Your task to perform on an android device: uninstall "Instagram" Image 0: 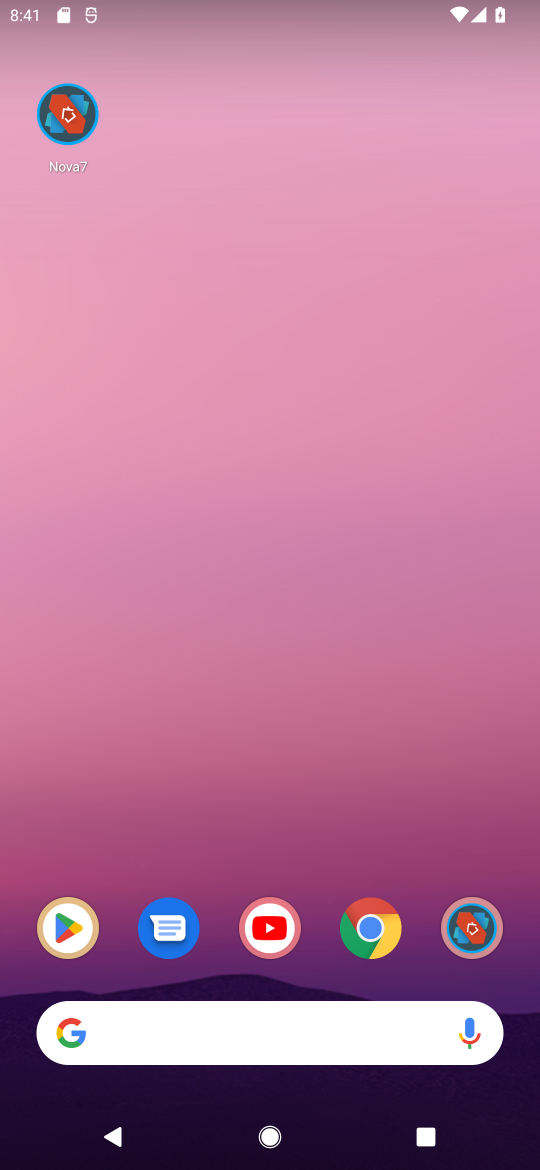
Step 0: press home button
Your task to perform on an android device: uninstall "Instagram" Image 1: 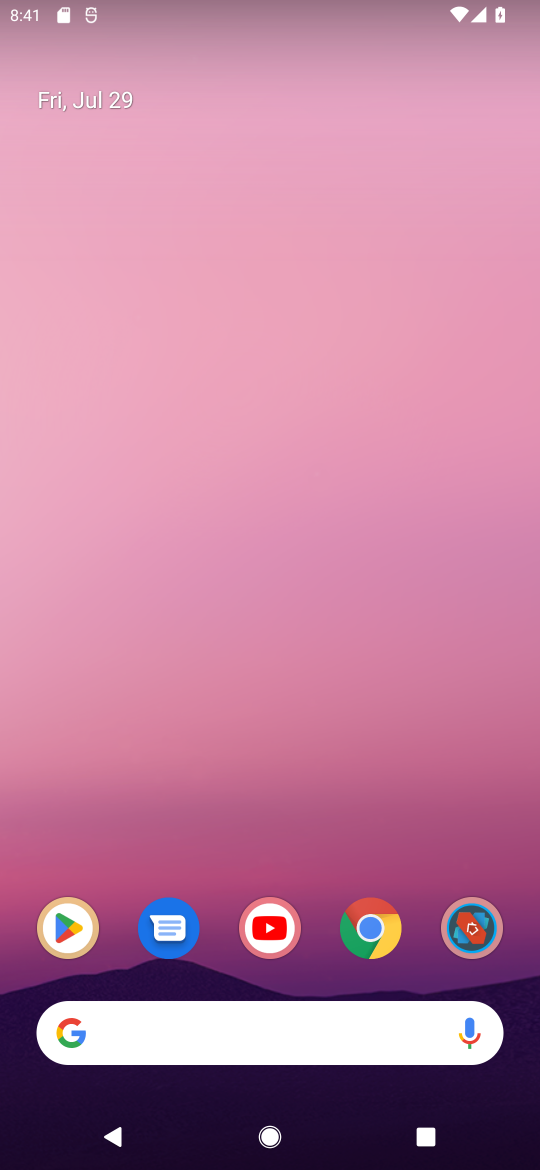
Step 1: drag from (164, 1036) to (220, 143)
Your task to perform on an android device: uninstall "Instagram" Image 2: 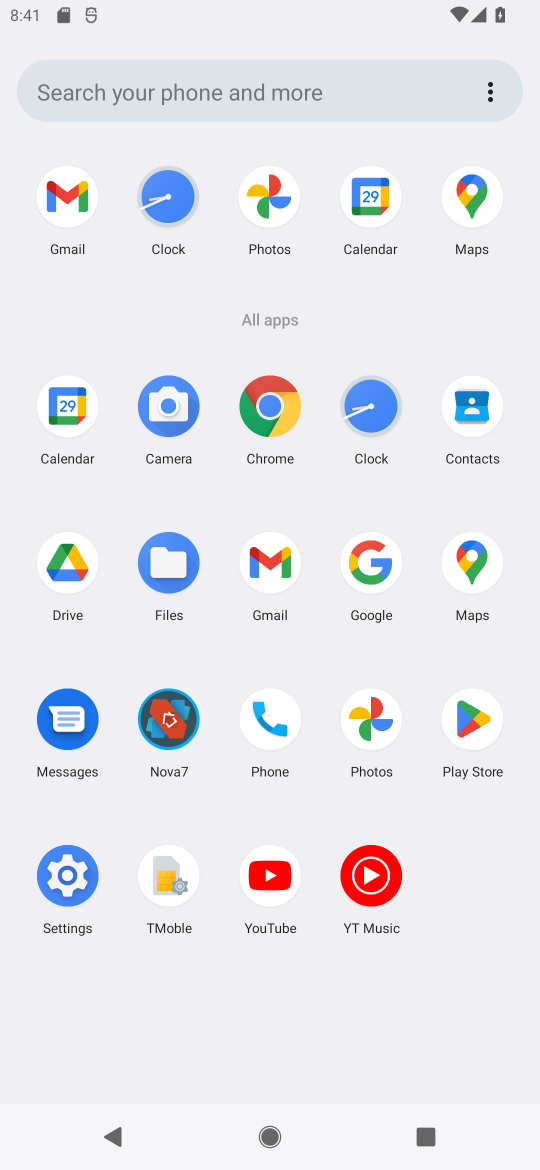
Step 2: click (475, 722)
Your task to perform on an android device: uninstall "Instagram" Image 3: 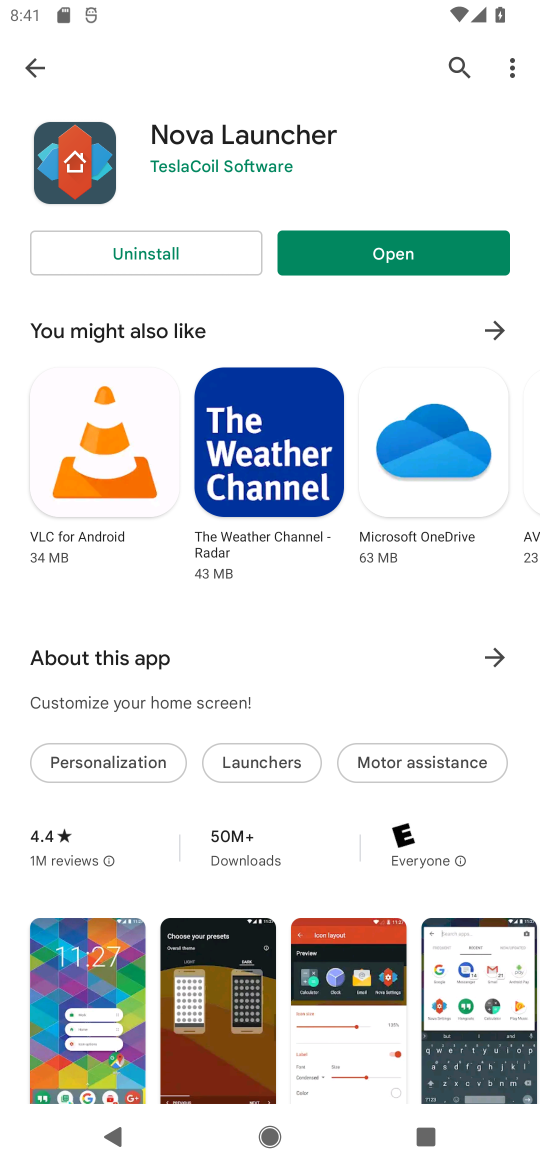
Step 3: click (456, 58)
Your task to perform on an android device: uninstall "Instagram" Image 4: 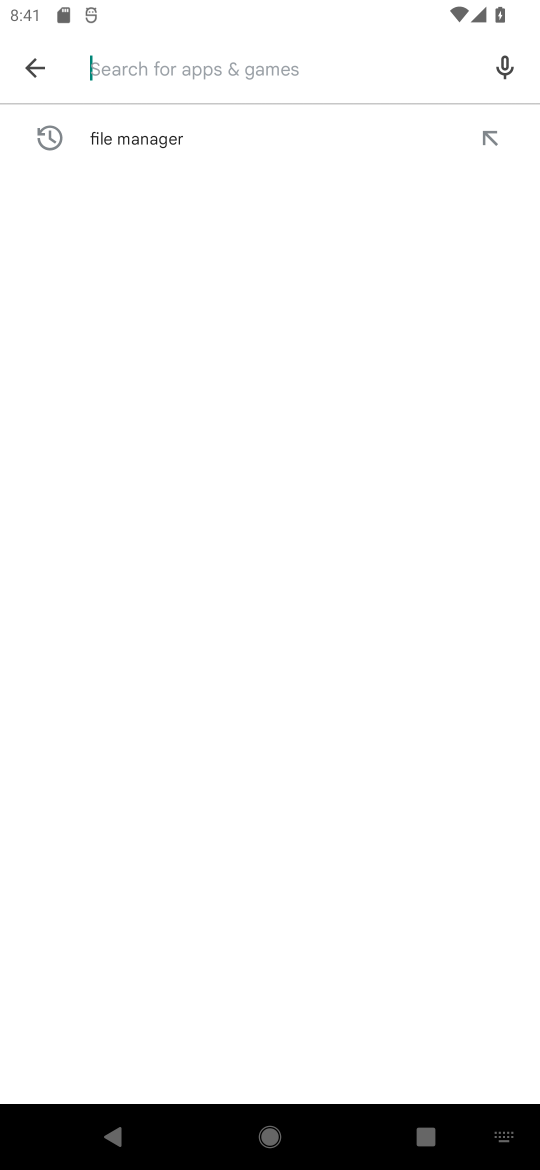
Step 4: type "Instagram"
Your task to perform on an android device: uninstall "Instagram" Image 5: 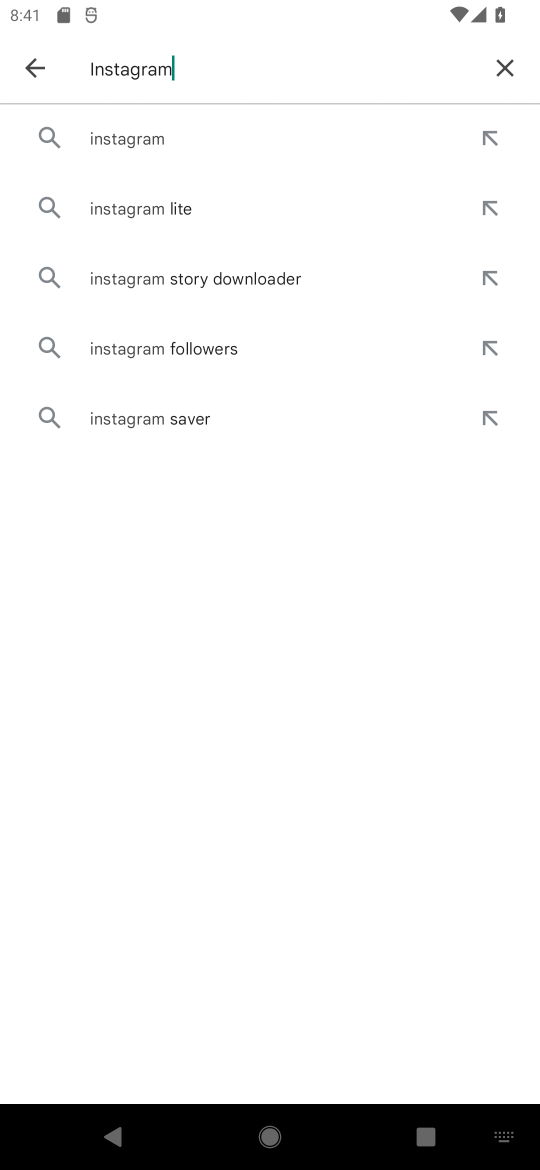
Step 5: click (203, 149)
Your task to perform on an android device: uninstall "Instagram" Image 6: 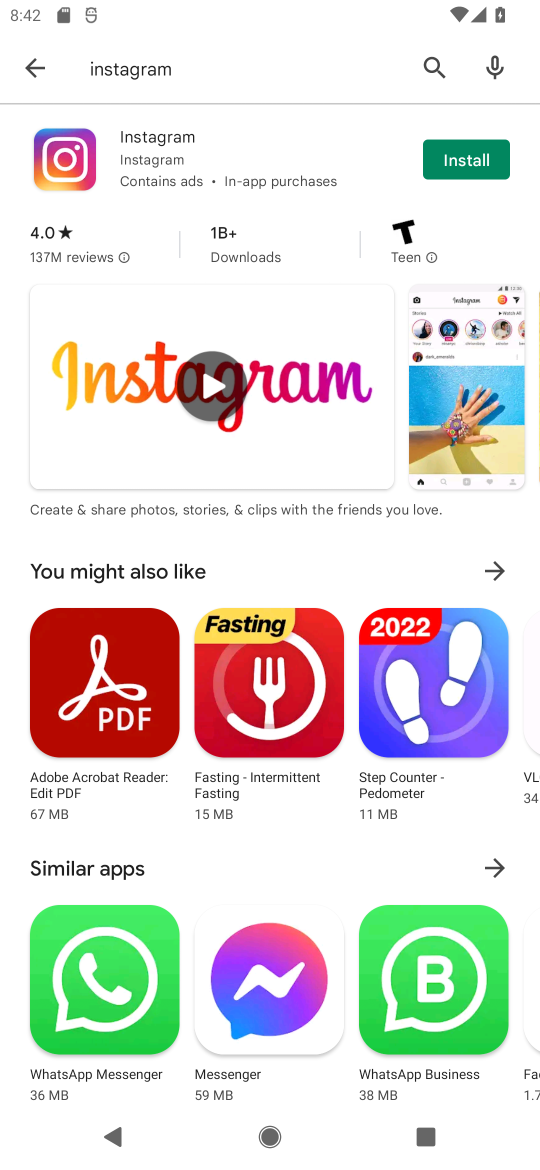
Step 6: task complete